Your task to perform on an android device: Toggle the flashlight Image 0: 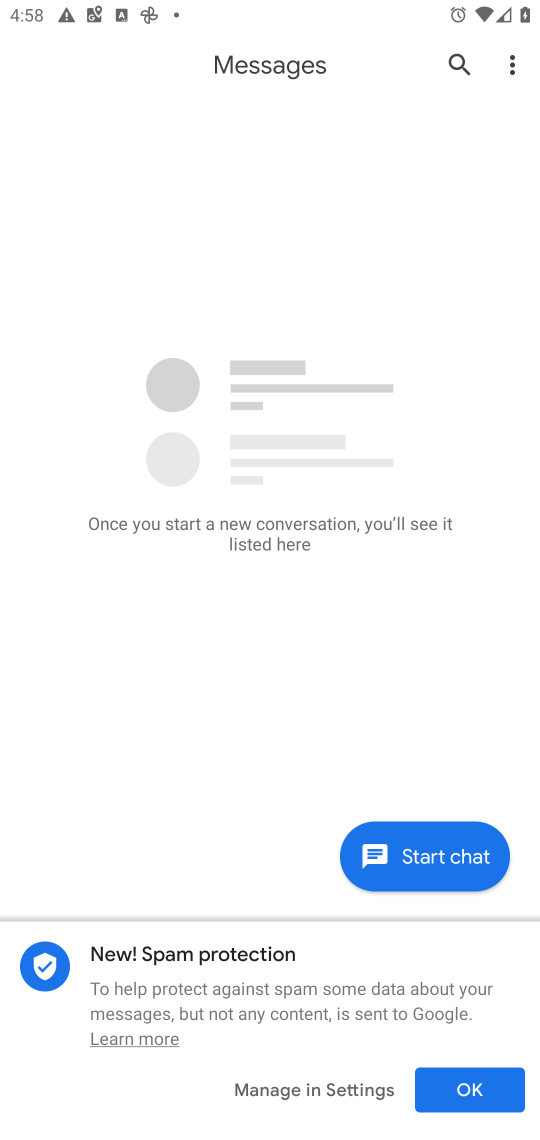
Step 0: press home button
Your task to perform on an android device: Toggle the flashlight Image 1: 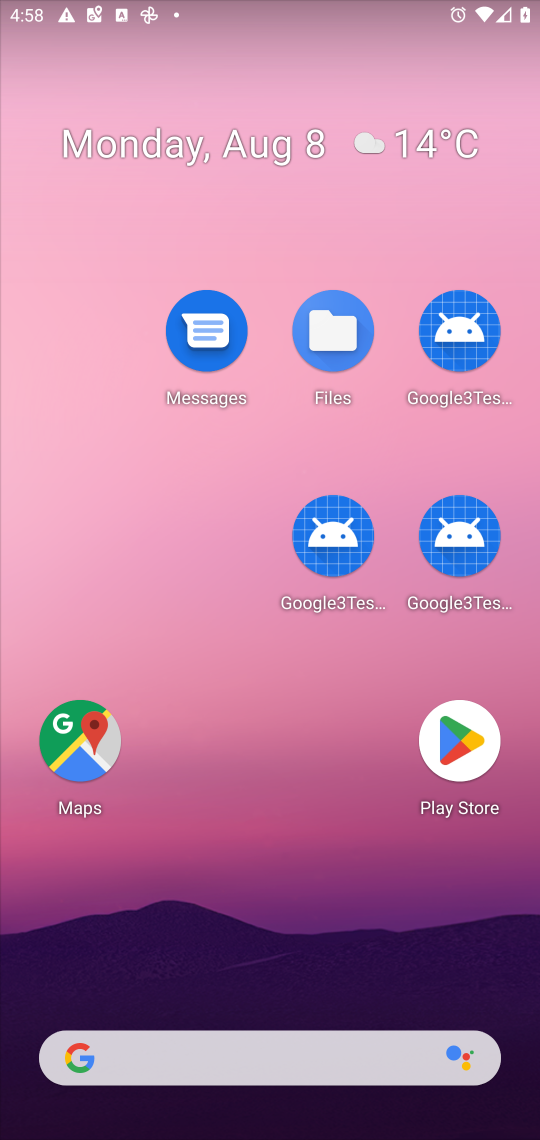
Step 1: task complete